Your task to perform on an android device: What's on my calendar today? Image 0: 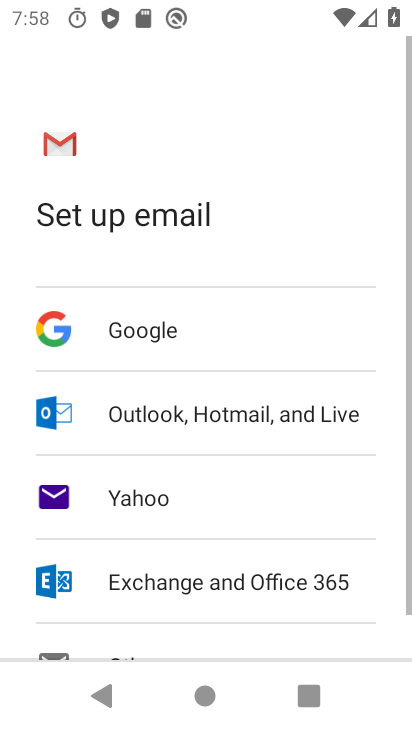
Step 0: press home button
Your task to perform on an android device: What's on my calendar today? Image 1: 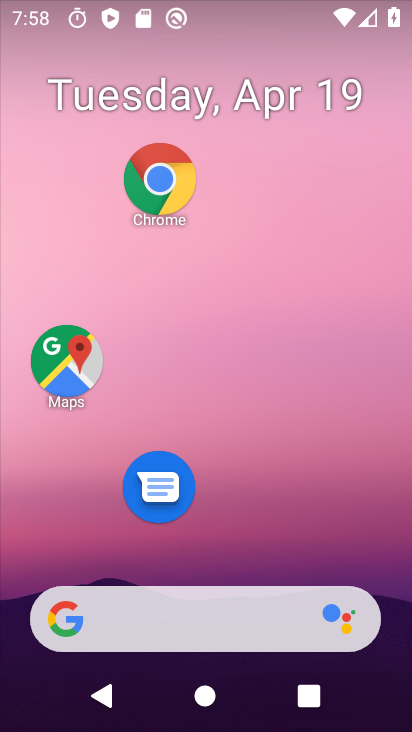
Step 1: drag from (262, 669) to (209, 164)
Your task to perform on an android device: What's on my calendar today? Image 2: 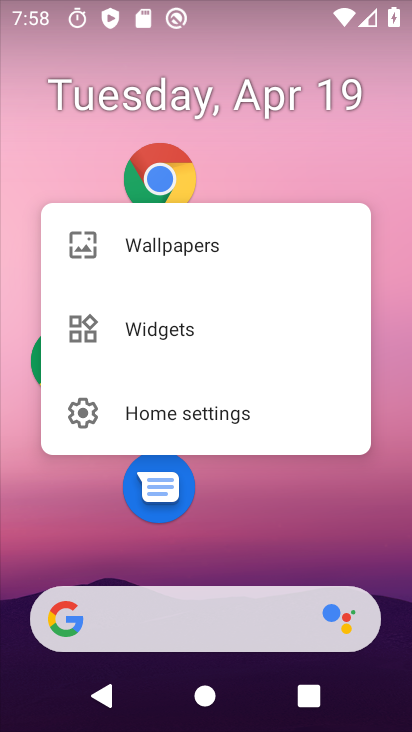
Step 2: click (240, 148)
Your task to perform on an android device: What's on my calendar today? Image 3: 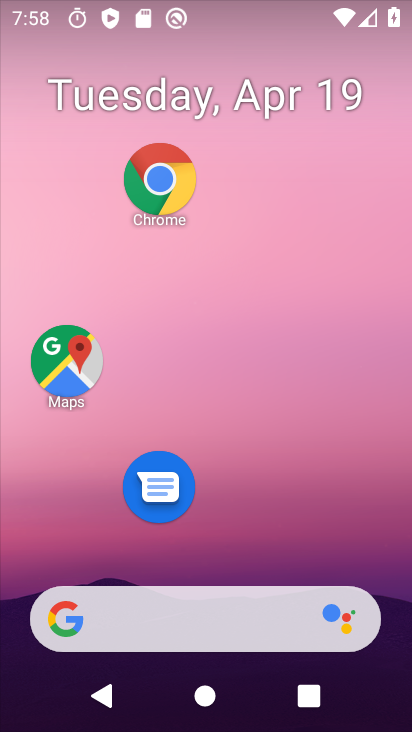
Step 3: drag from (245, 620) to (200, 193)
Your task to perform on an android device: What's on my calendar today? Image 4: 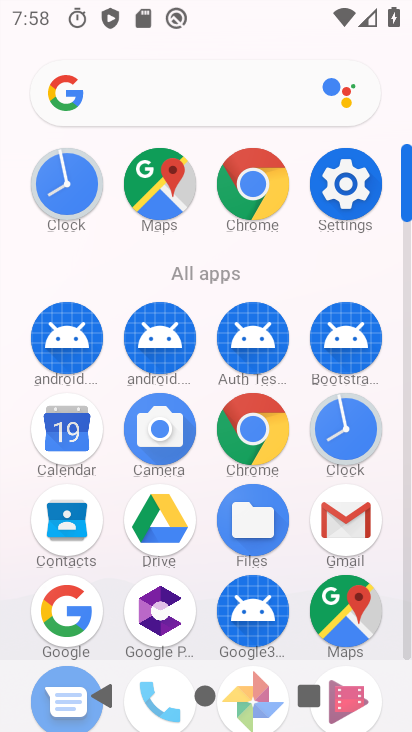
Step 4: click (66, 442)
Your task to perform on an android device: What's on my calendar today? Image 5: 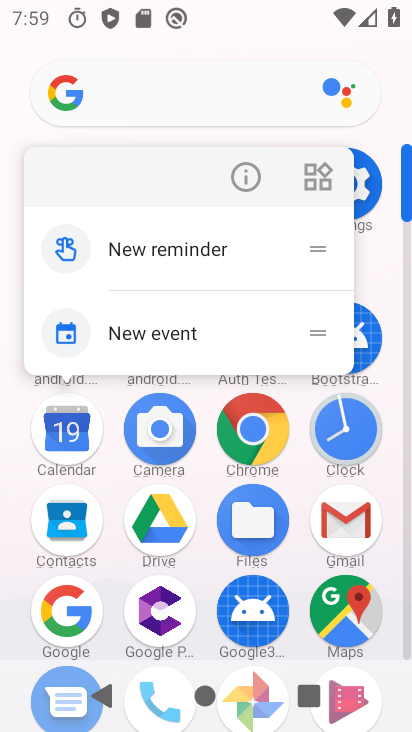
Step 5: click (62, 428)
Your task to perform on an android device: What's on my calendar today? Image 6: 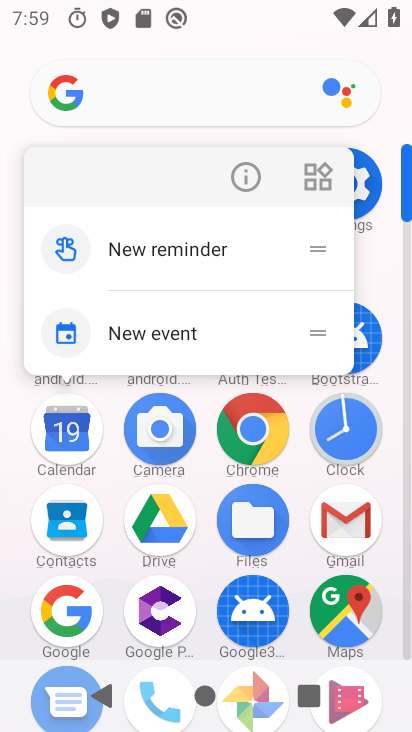
Step 6: click (52, 450)
Your task to perform on an android device: What's on my calendar today? Image 7: 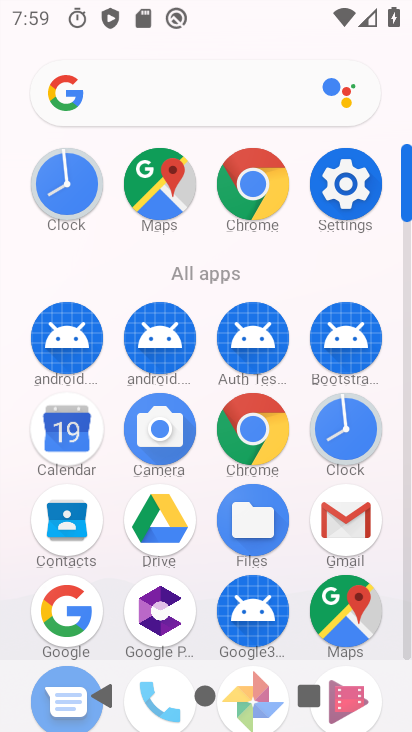
Step 7: click (52, 419)
Your task to perform on an android device: What's on my calendar today? Image 8: 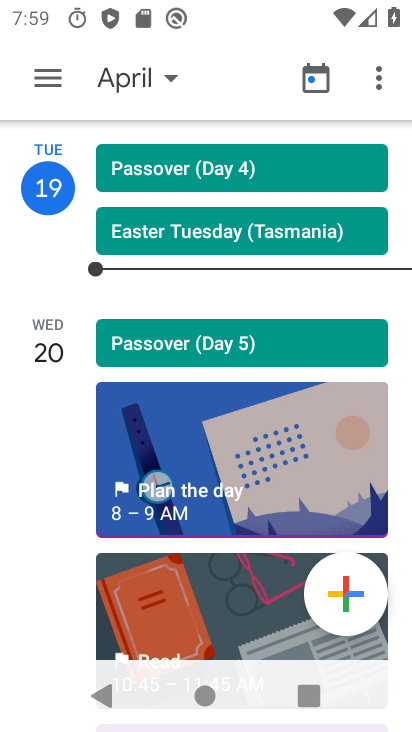
Step 8: click (173, 348)
Your task to perform on an android device: What's on my calendar today? Image 9: 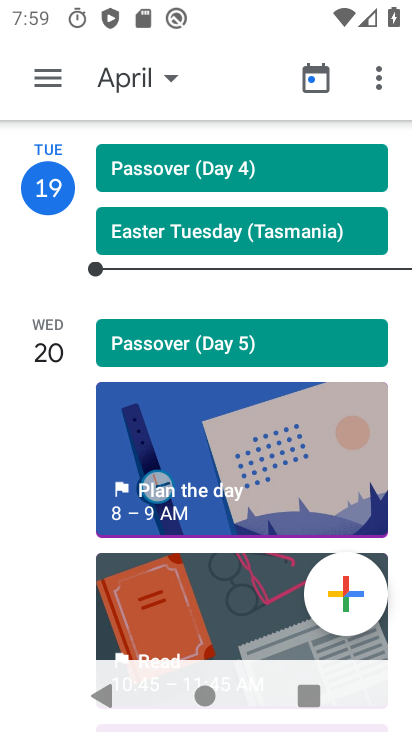
Step 9: click (160, 349)
Your task to perform on an android device: What's on my calendar today? Image 10: 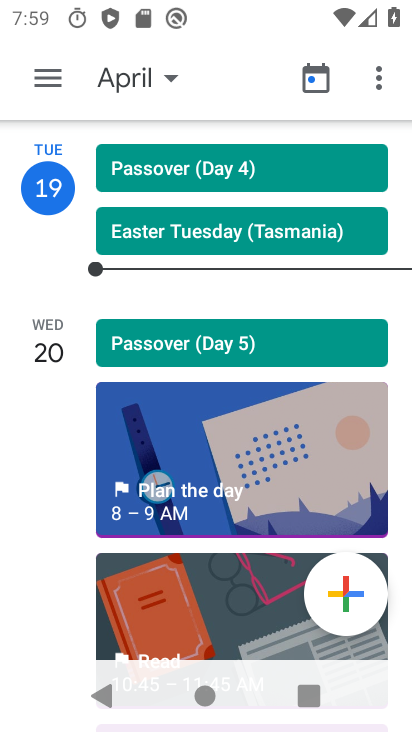
Step 10: task complete